Your task to perform on an android device: Go to Maps Image 0: 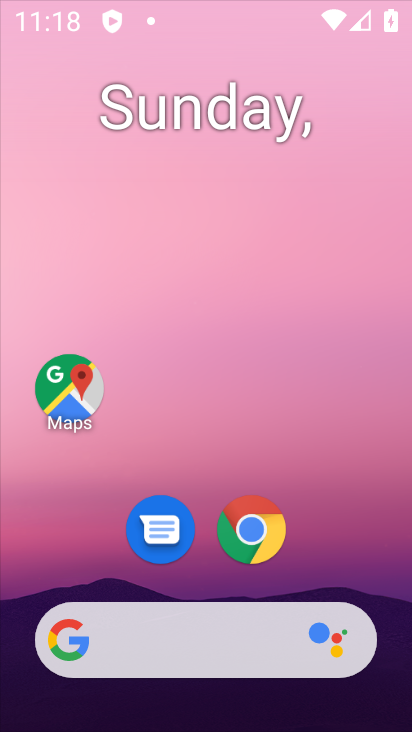
Step 0: drag from (200, 480) to (317, 39)
Your task to perform on an android device: Go to Maps Image 1: 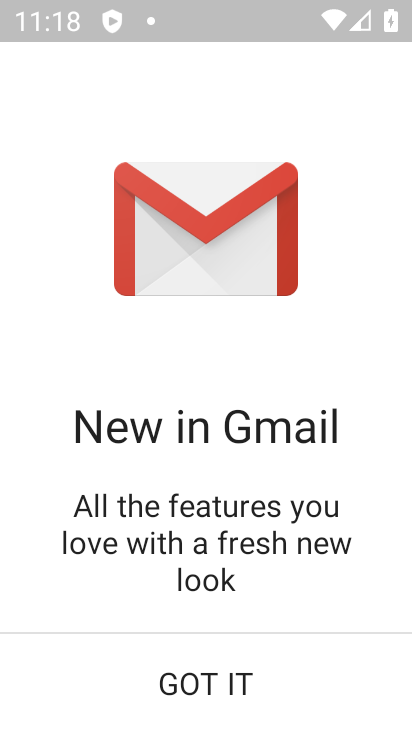
Step 1: press home button
Your task to perform on an android device: Go to Maps Image 2: 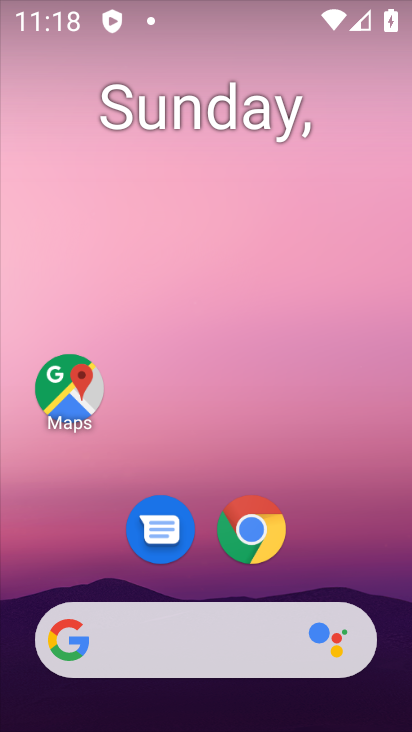
Step 2: drag from (220, 606) to (210, 60)
Your task to perform on an android device: Go to Maps Image 3: 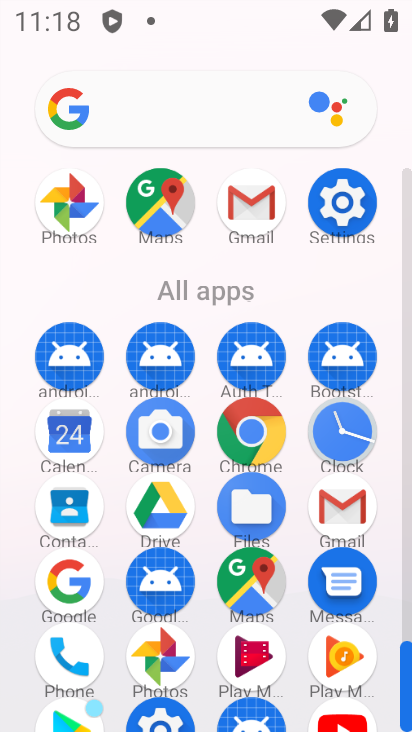
Step 3: click (268, 585)
Your task to perform on an android device: Go to Maps Image 4: 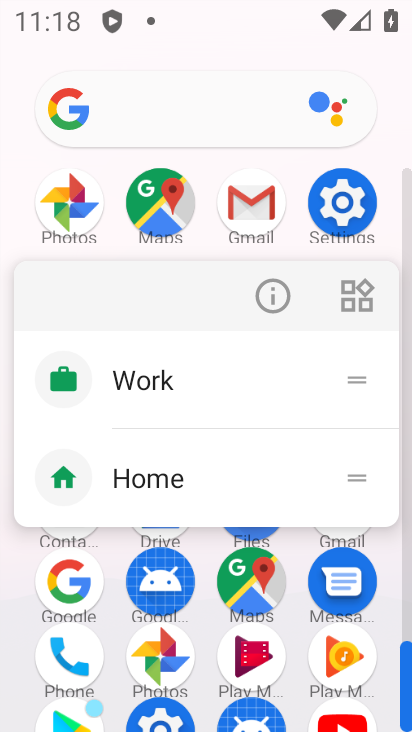
Step 4: click (273, 571)
Your task to perform on an android device: Go to Maps Image 5: 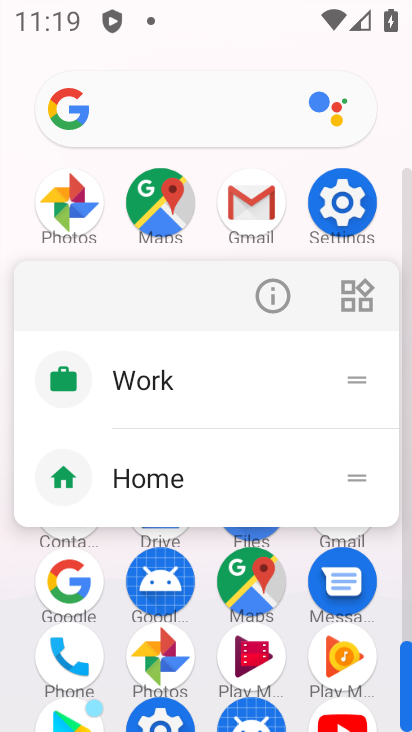
Step 5: click (267, 578)
Your task to perform on an android device: Go to Maps Image 6: 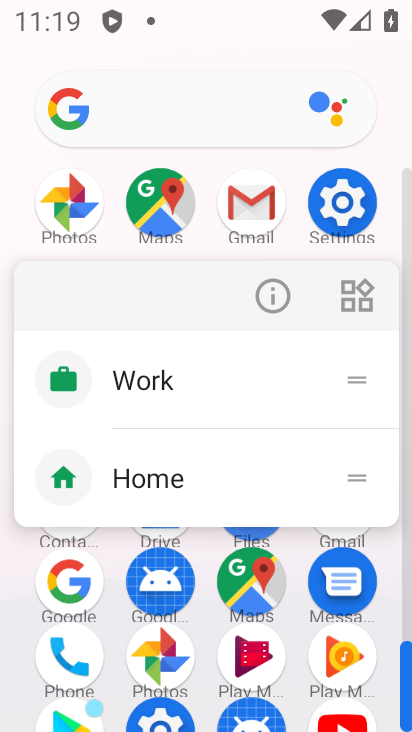
Step 6: click (266, 576)
Your task to perform on an android device: Go to Maps Image 7: 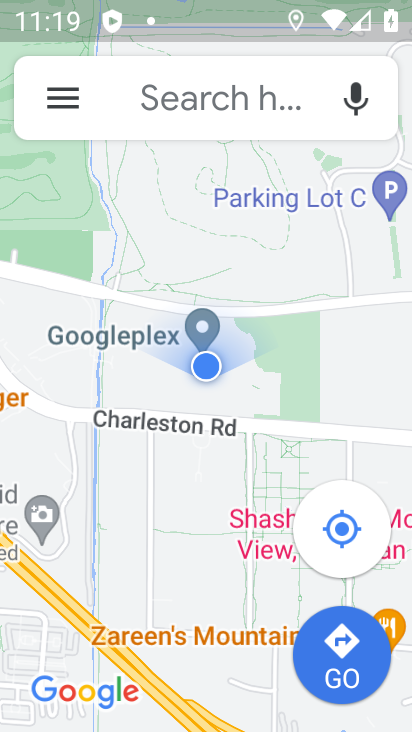
Step 7: task complete